Your task to perform on an android device: open chrome privacy settings Image 0: 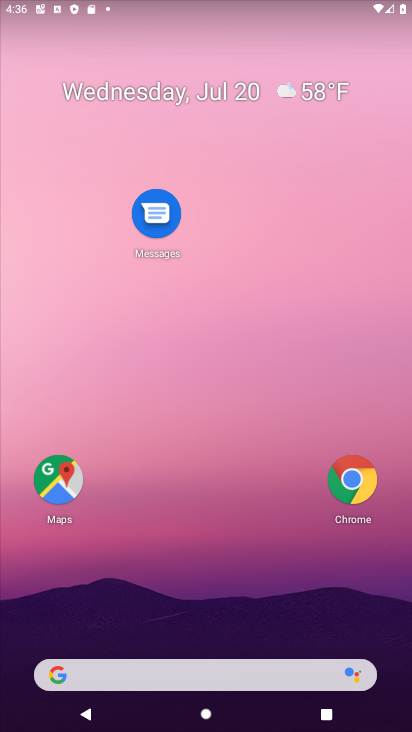
Step 0: click (348, 486)
Your task to perform on an android device: open chrome privacy settings Image 1: 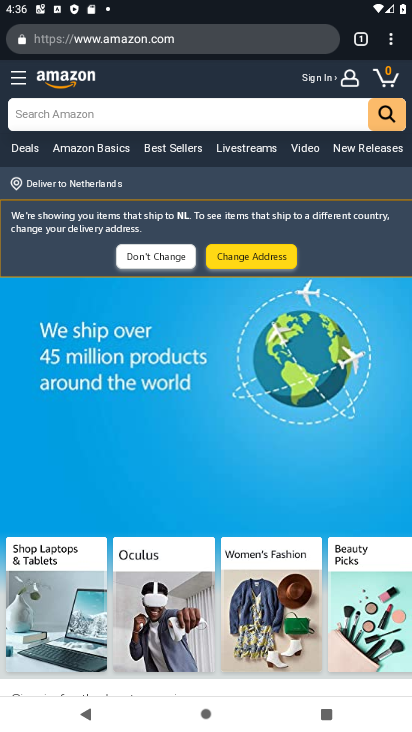
Step 1: click (389, 40)
Your task to perform on an android device: open chrome privacy settings Image 2: 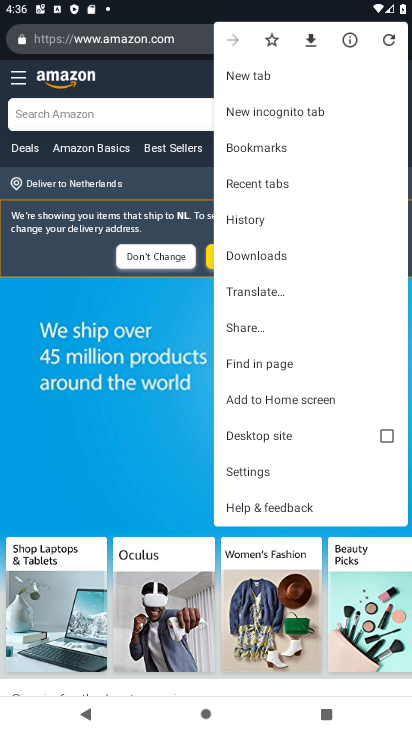
Step 2: click (245, 472)
Your task to perform on an android device: open chrome privacy settings Image 3: 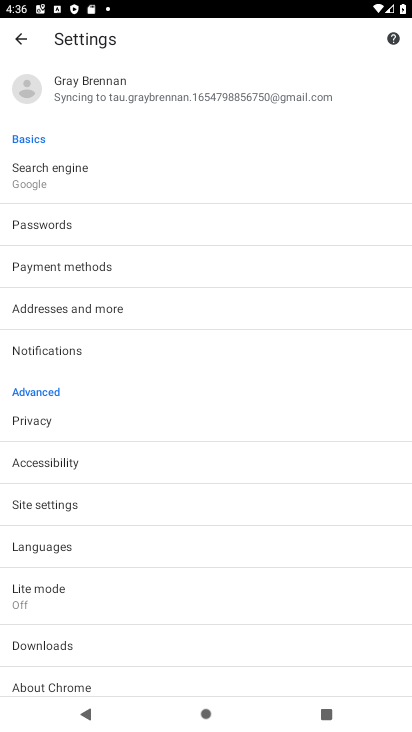
Step 3: click (38, 412)
Your task to perform on an android device: open chrome privacy settings Image 4: 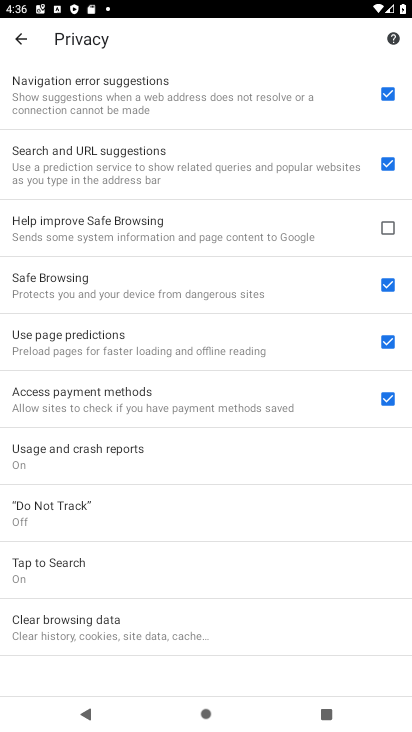
Step 4: task complete